Your task to perform on an android device: Do I have any events tomorrow? Image 0: 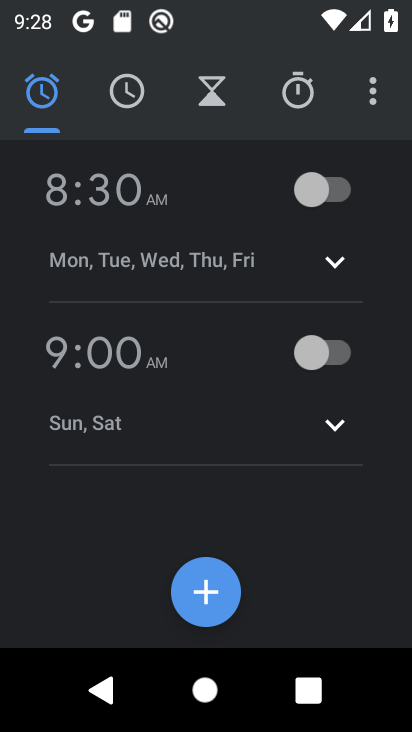
Step 0: press home button
Your task to perform on an android device: Do I have any events tomorrow? Image 1: 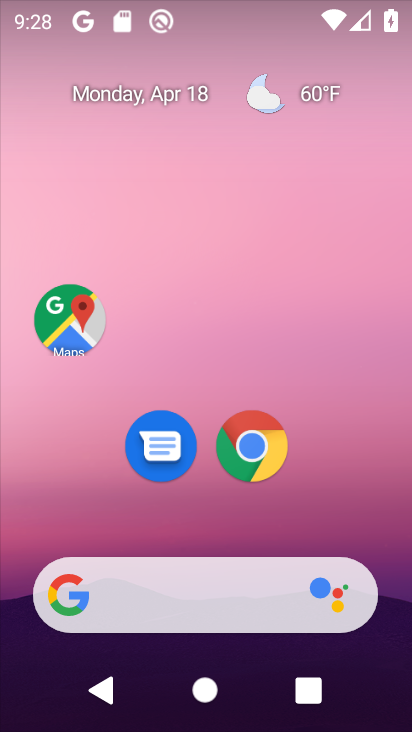
Step 1: drag from (385, 522) to (377, 183)
Your task to perform on an android device: Do I have any events tomorrow? Image 2: 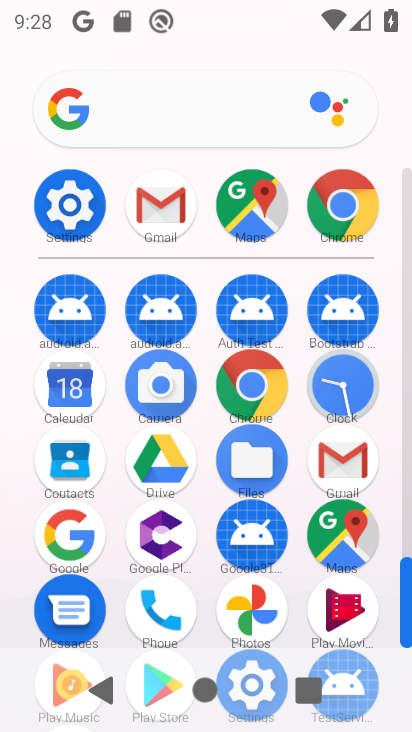
Step 2: click (58, 399)
Your task to perform on an android device: Do I have any events tomorrow? Image 3: 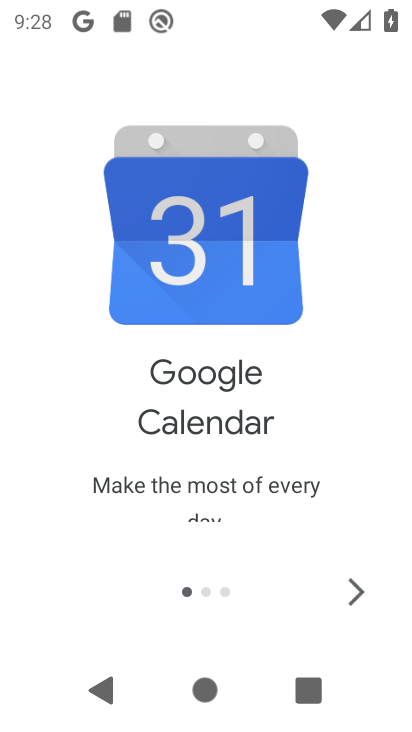
Step 3: click (349, 601)
Your task to perform on an android device: Do I have any events tomorrow? Image 4: 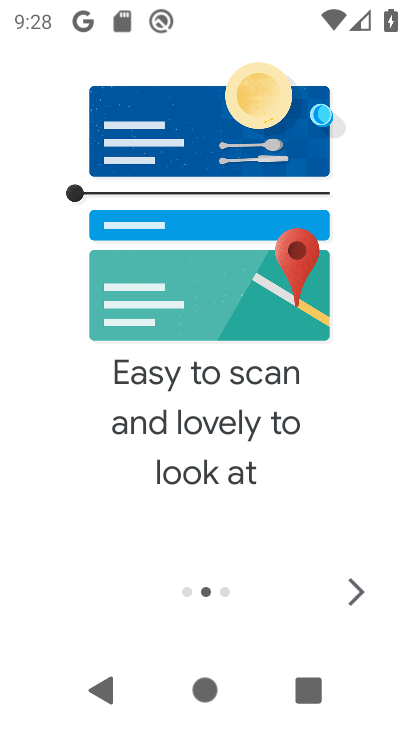
Step 4: click (349, 600)
Your task to perform on an android device: Do I have any events tomorrow? Image 5: 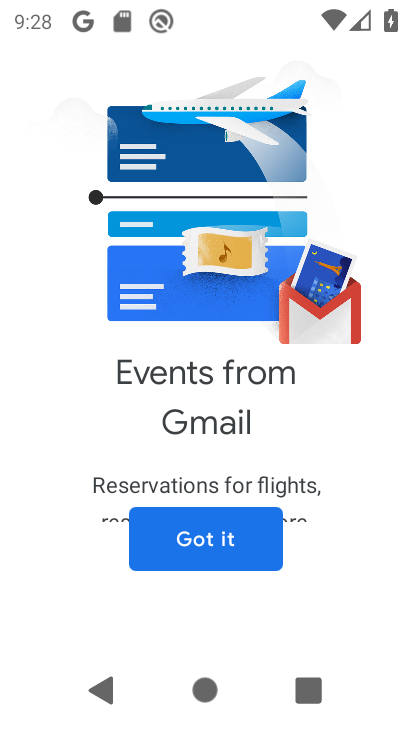
Step 5: click (187, 539)
Your task to perform on an android device: Do I have any events tomorrow? Image 6: 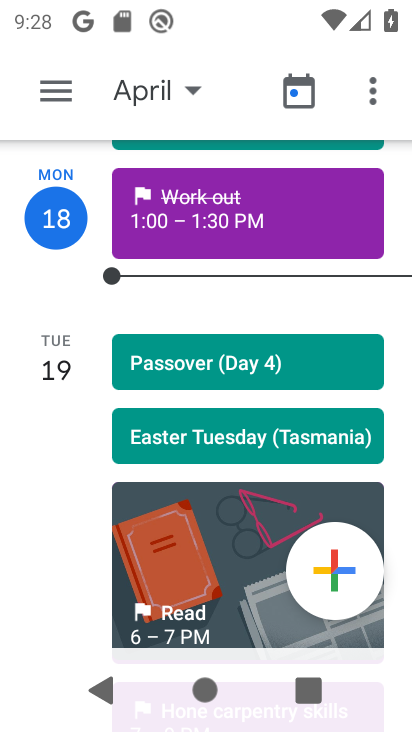
Step 6: click (188, 88)
Your task to perform on an android device: Do I have any events tomorrow? Image 7: 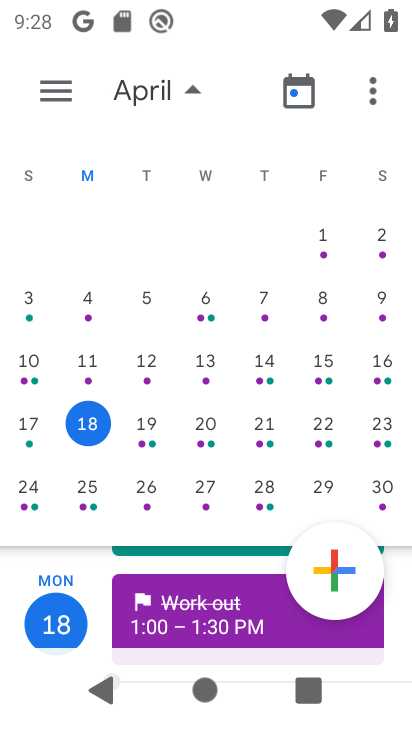
Step 7: click (208, 425)
Your task to perform on an android device: Do I have any events tomorrow? Image 8: 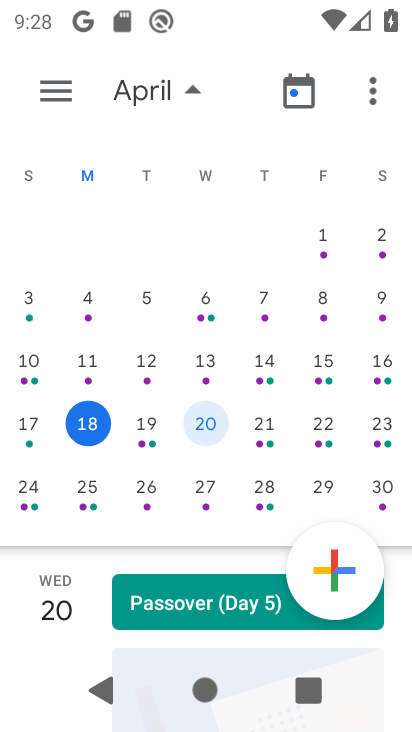
Step 8: drag from (223, 547) to (238, 191)
Your task to perform on an android device: Do I have any events tomorrow? Image 9: 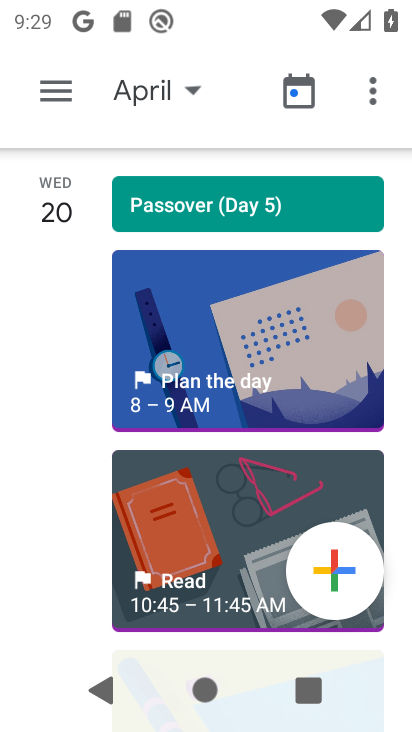
Step 9: click (218, 416)
Your task to perform on an android device: Do I have any events tomorrow? Image 10: 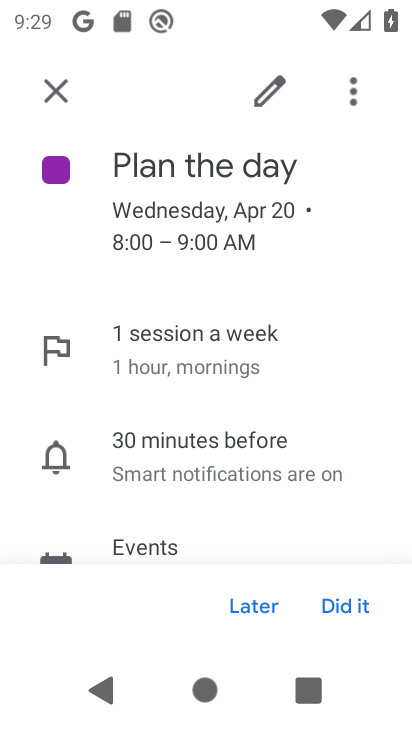
Step 10: task complete